Your task to perform on an android device: turn notification dots on Image 0: 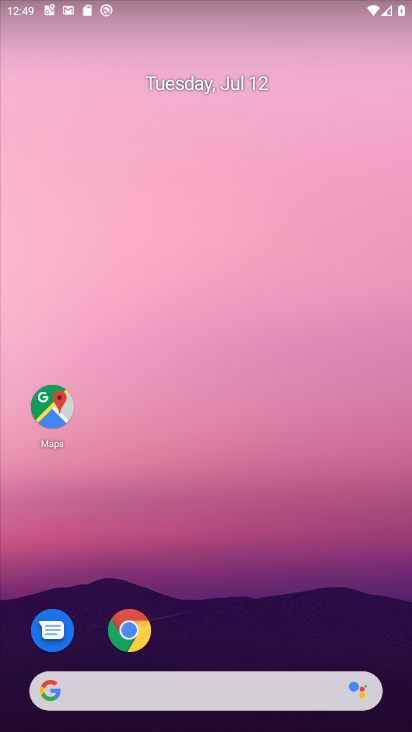
Step 0: click (309, 10)
Your task to perform on an android device: turn notification dots on Image 1: 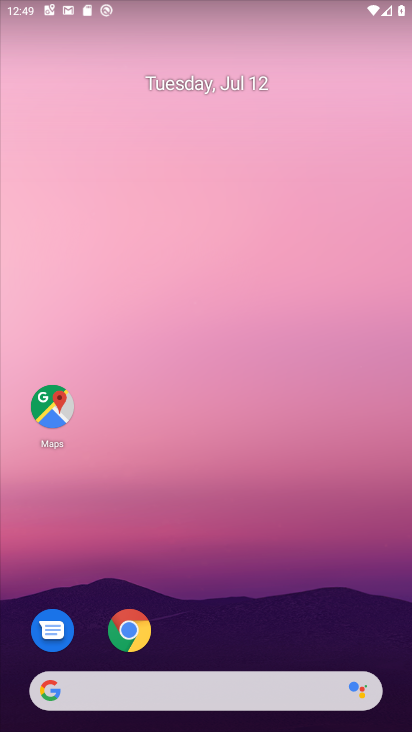
Step 1: drag from (282, 625) to (318, 246)
Your task to perform on an android device: turn notification dots on Image 2: 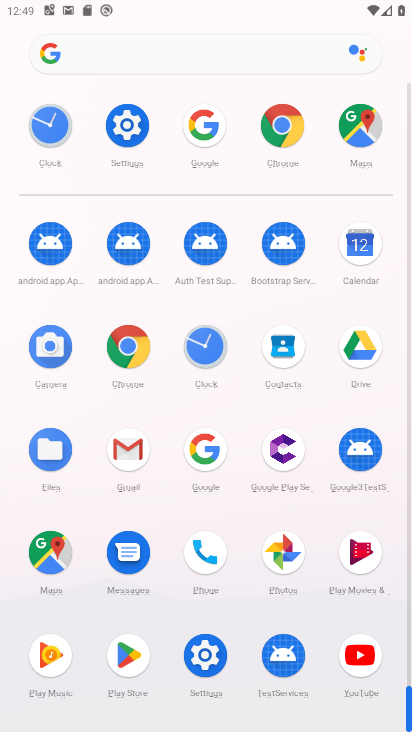
Step 2: click (124, 142)
Your task to perform on an android device: turn notification dots on Image 3: 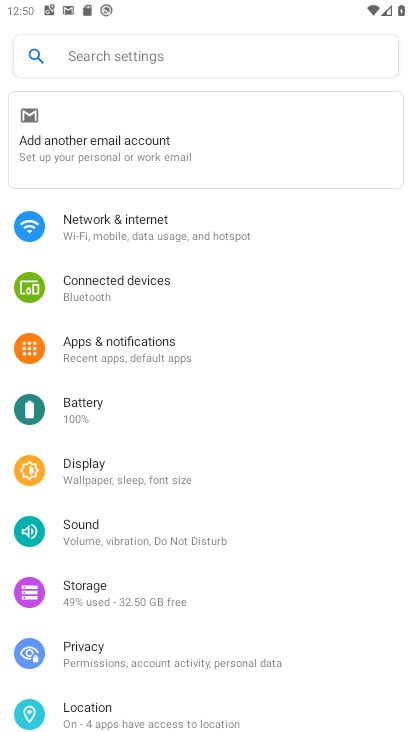
Step 3: click (179, 353)
Your task to perform on an android device: turn notification dots on Image 4: 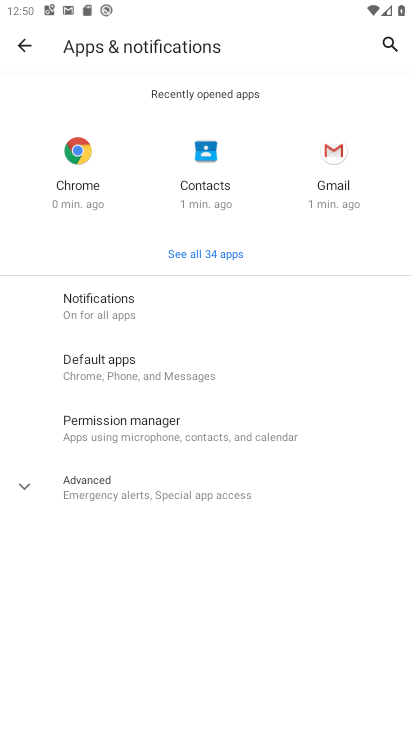
Step 4: click (195, 305)
Your task to perform on an android device: turn notification dots on Image 5: 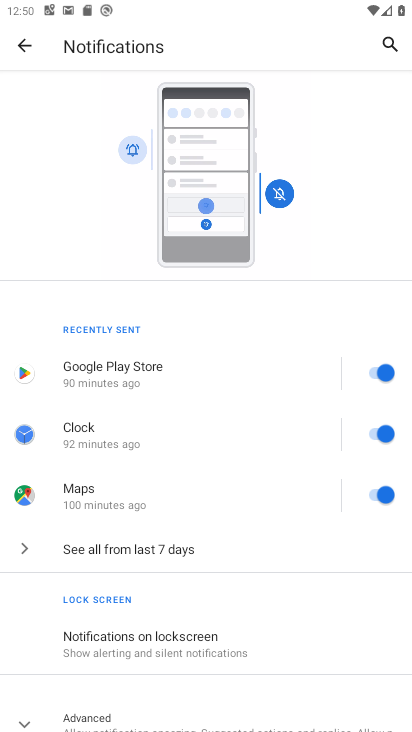
Step 5: click (163, 718)
Your task to perform on an android device: turn notification dots on Image 6: 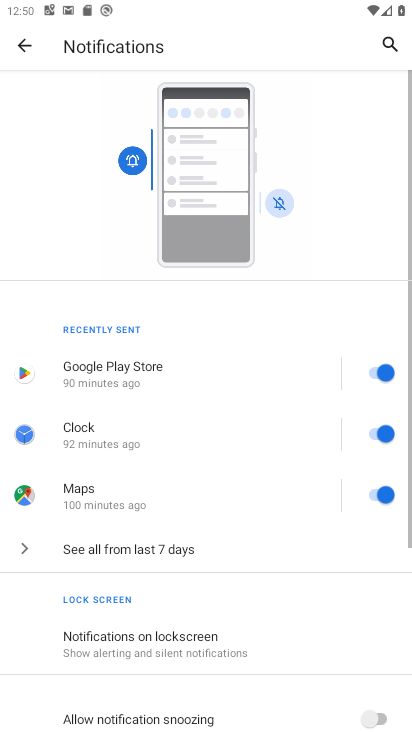
Step 6: drag from (163, 718) to (186, 386)
Your task to perform on an android device: turn notification dots on Image 7: 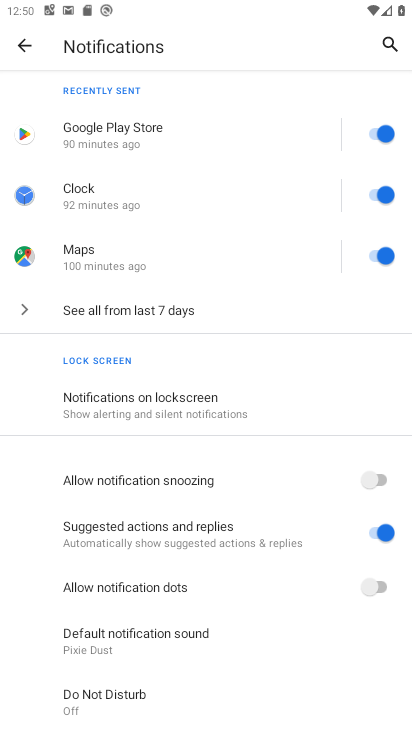
Step 7: click (300, 577)
Your task to perform on an android device: turn notification dots on Image 8: 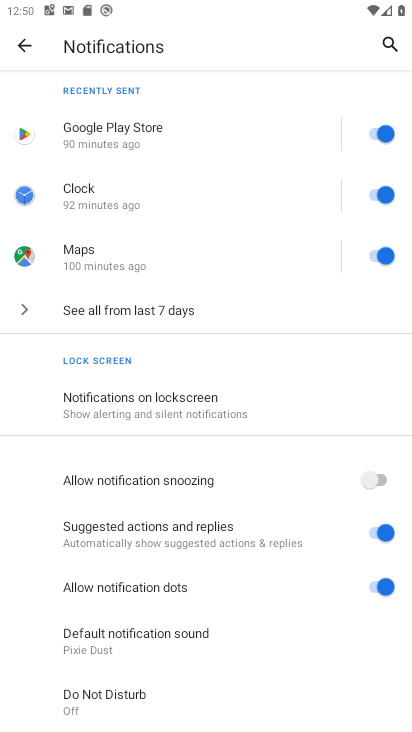
Step 8: task complete